Your task to perform on an android device: clear all cookies in the chrome app Image 0: 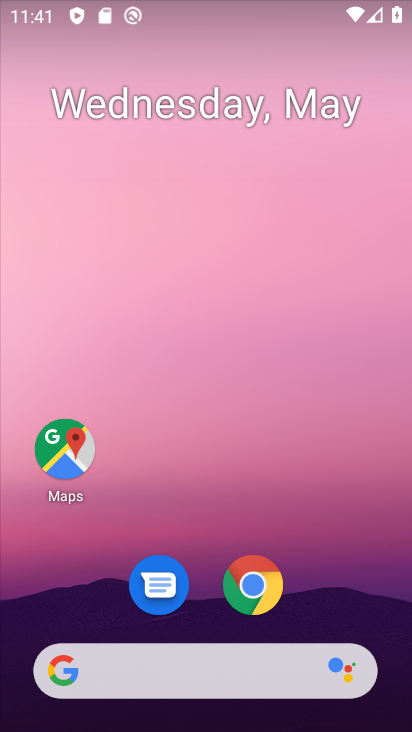
Step 0: click (260, 580)
Your task to perform on an android device: clear all cookies in the chrome app Image 1: 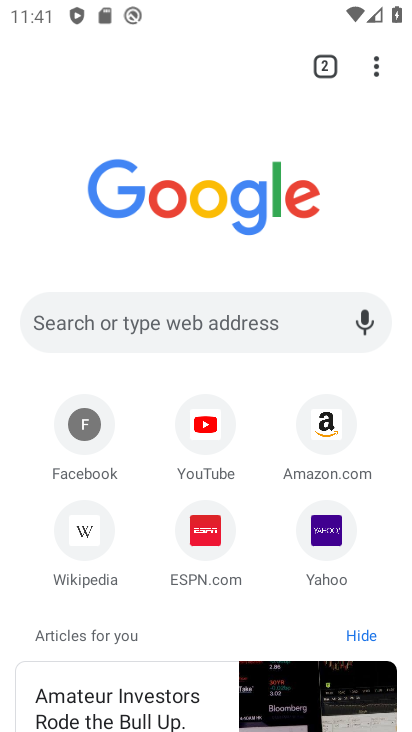
Step 1: click (375, 71)
Your task to perform on an android device: clear all cookies in the chrome app Image 2: 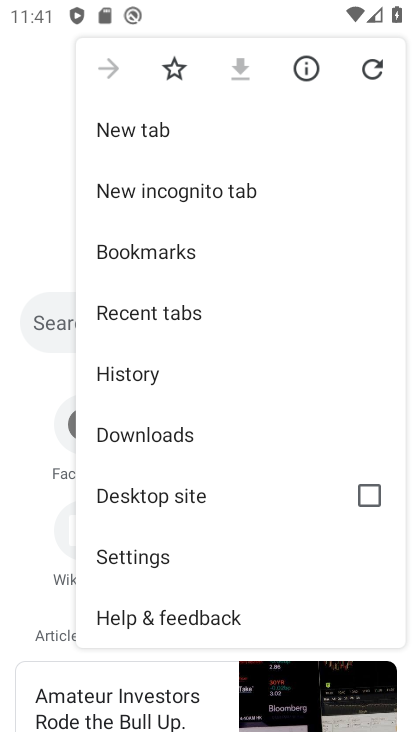
Step 2: click (153, 553)
Your task to perform on an android device: clear all cookies in the chrome app Image 3: 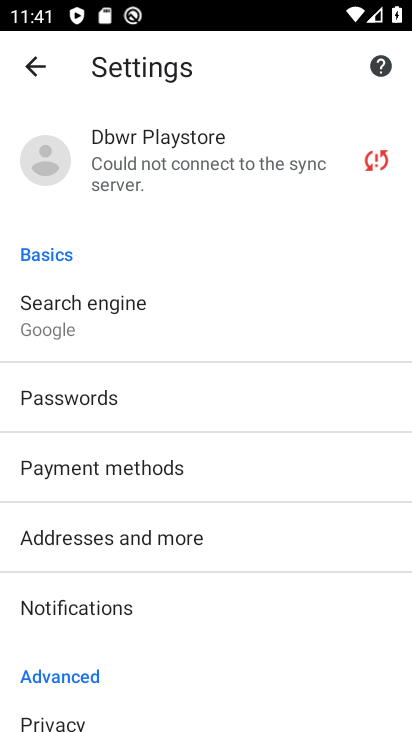
Step 3: click (154, 723)
Your task to perform on an android device: clear all cookies in the chrome app Image 4: 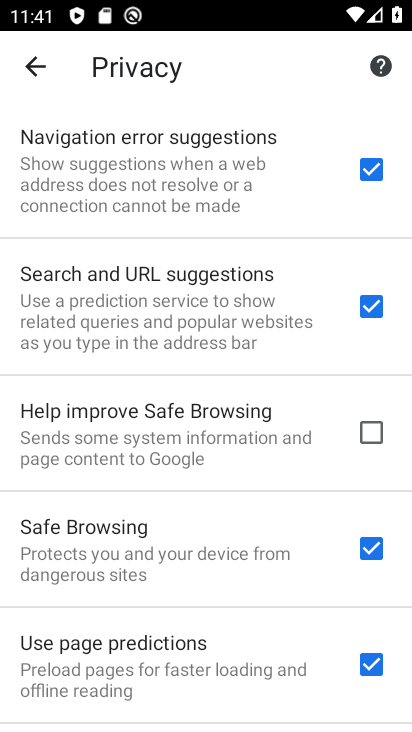
Step 4: drag from (221, 628) to (260, 113)
Your task to perform on an android device: clear all cookies in the chrome app Image 5: 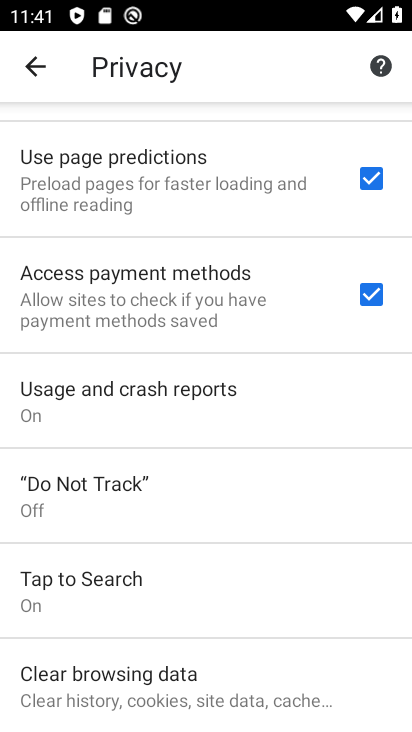
Step 5: click (203, 680)
Your task to perform on an android device: clear all cookies in the chrome app Image 6: 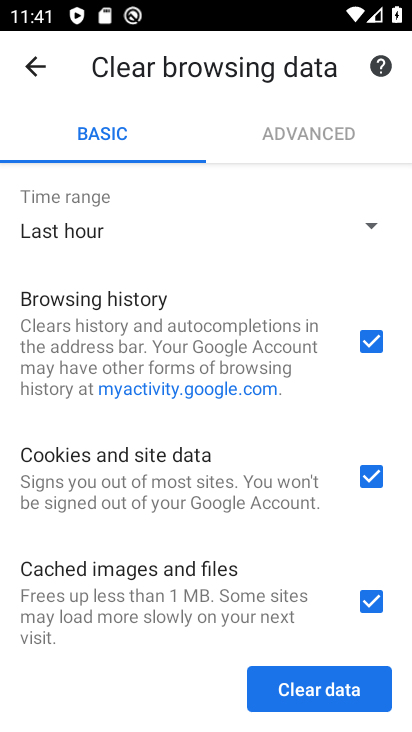
Step 6: click (376, 597)
Your task to perform on an android device: clear all cookies in the chrome app Image 7: 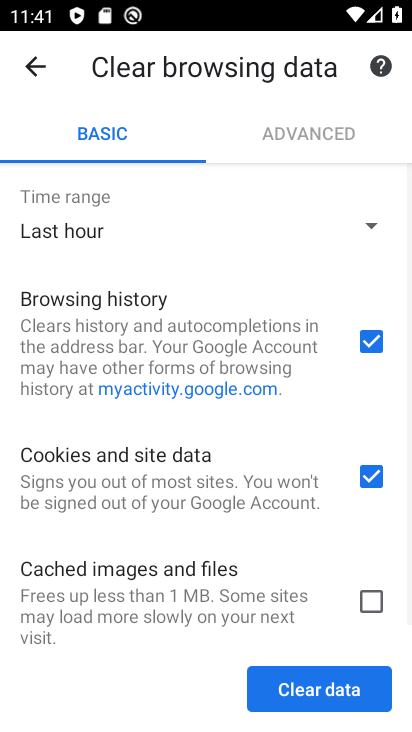
Step 7: click (374, 337)
Your task to perform on an android device: clear all cookies in the chrome app Image 8: 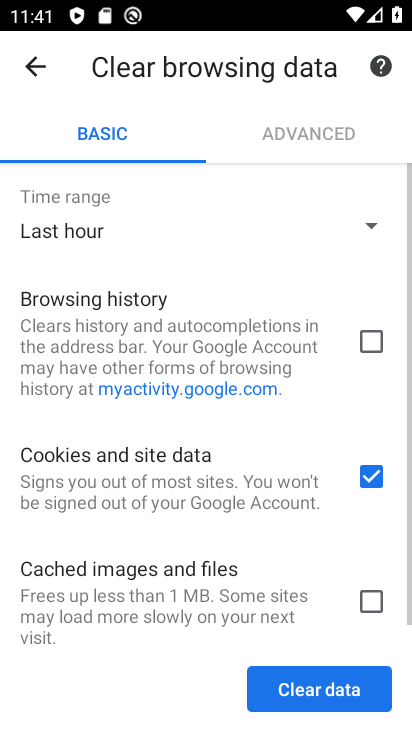
Step 8: click (348, 685)
Your task to perform on an android device: clear all cookies in the chrome app Image 9: 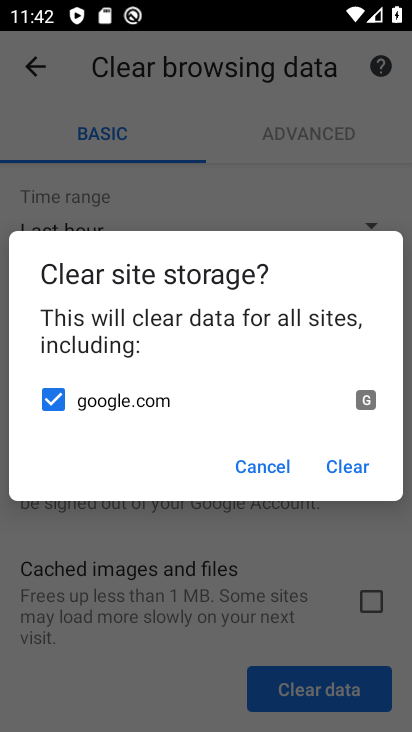
Step 9: click (345, 458)
Your task to perform on an android device: clear all cookies in the chrome app Image 10: 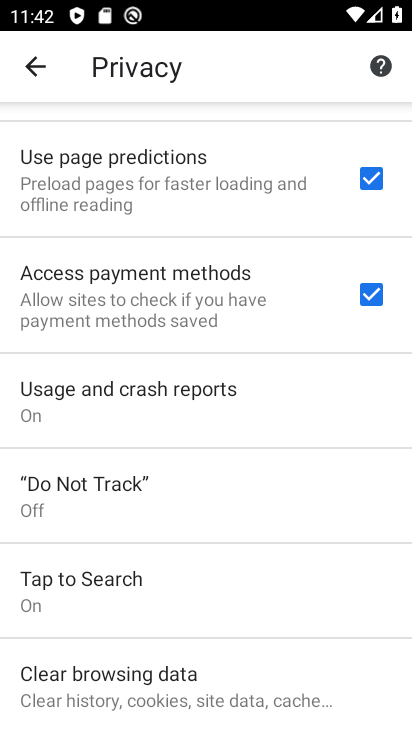
Step 10: task complete